Your task to perform on an android device: make emails show in primary in the gmail app Image 0: 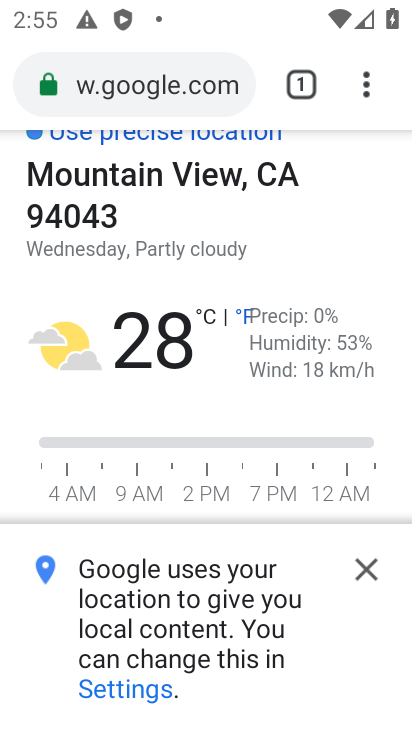
Step 0: press home button
Your task to perform on an android device: make emails show in primary in the gmail app Image 1: 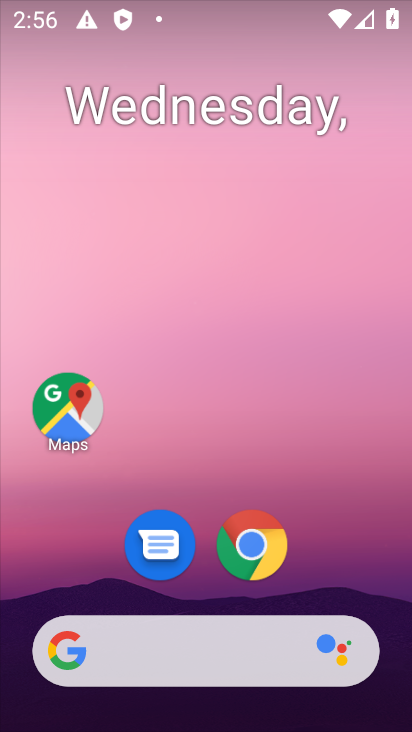
Step 1: drag from (202, 338) to (198, 270)
Your task to perform on an android device: make emails show in primary in the gmail app Image 2: 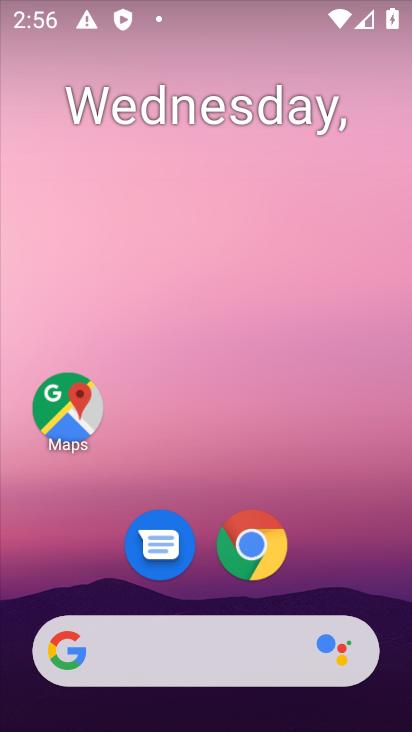
Step 2: drag from (188, 661) to (143, 346)
Your task to perform on an android device: make emails show in primary in the gmail app Image 3: 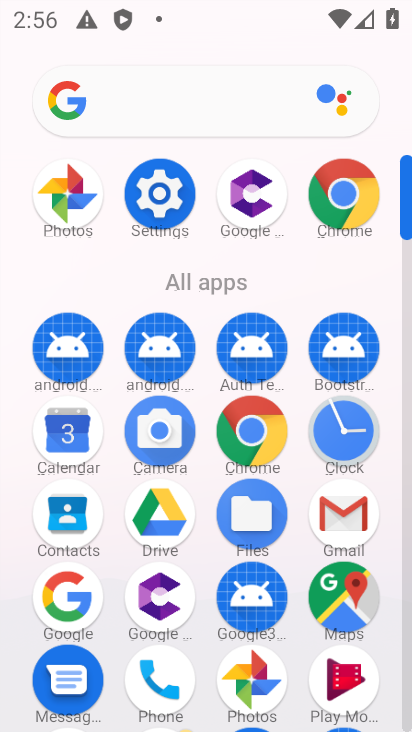
Step 3: click (327, 510)
Your task to perform on an android device: make emails show in primary in the gmail app Image 4: 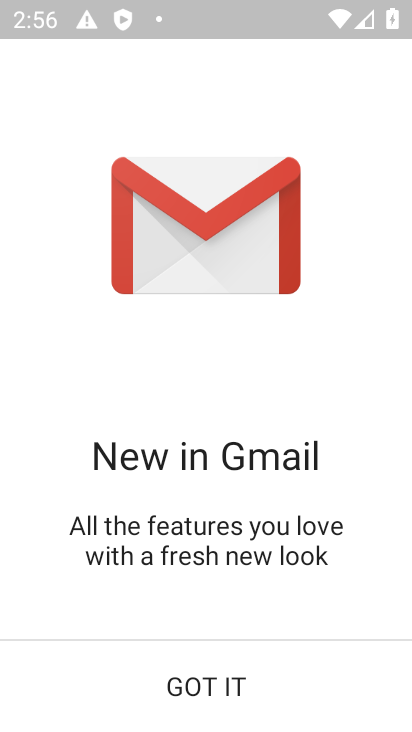
Step 4: click (173, 672)
Your task to perform on an android device: make emails show in primary in the gmail app Image 5: 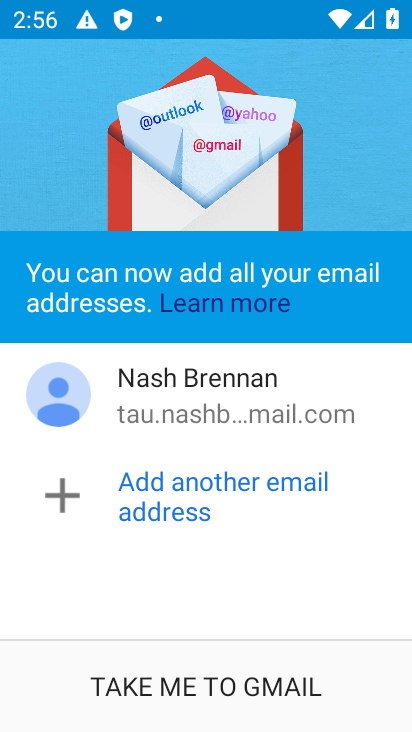
Step 5: click (248, 679)
Your task to perform on an android device: make emails show in primary in the gmail app Image 6: 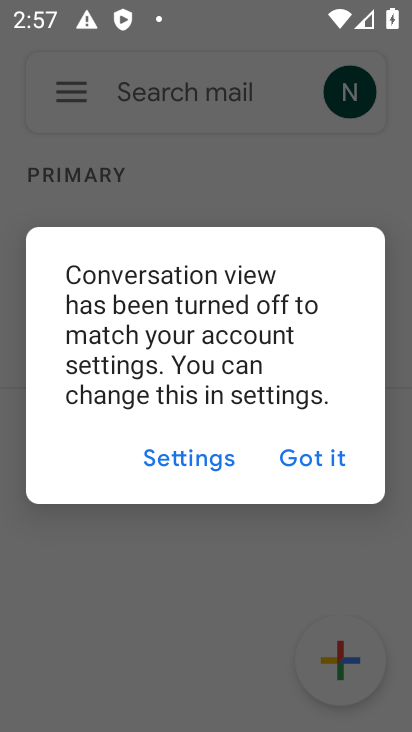
Step 6: click (329, 469)
Your task to perform on an android device: make emails show in primary in the gmail app Image 7: 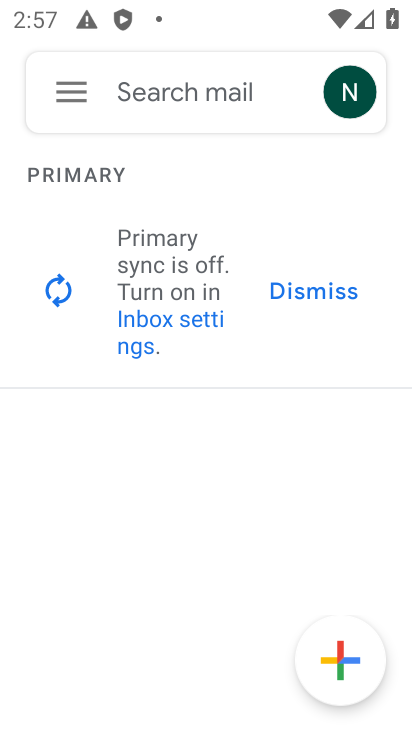
Step 7: click (66, 100)
Your task to perform on an android device: make emails show in primary in the gmail app Image 8: 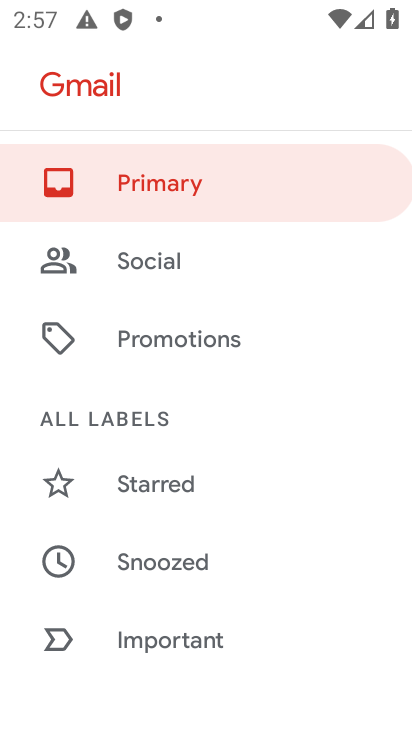
Step 8: drag from (169, 555) to (151, 128)
Your task to perform on an android device: make emails show in primary in the gmail app Image 9: 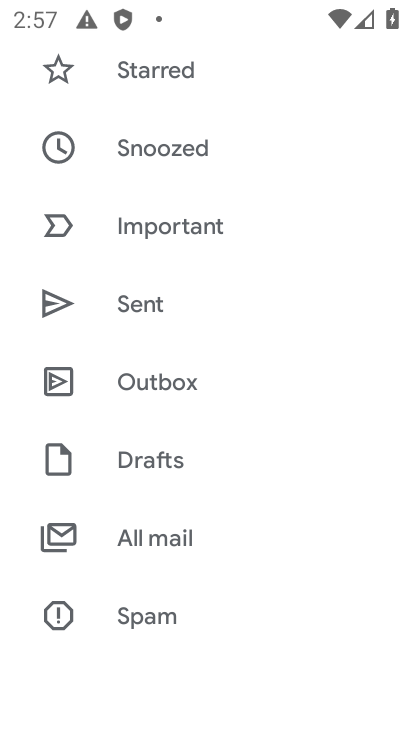
Step 9: drag from (216, 579) to (168, 1)
Your task to perform on an android device: make emails show in primary in the gmail app Image 10: 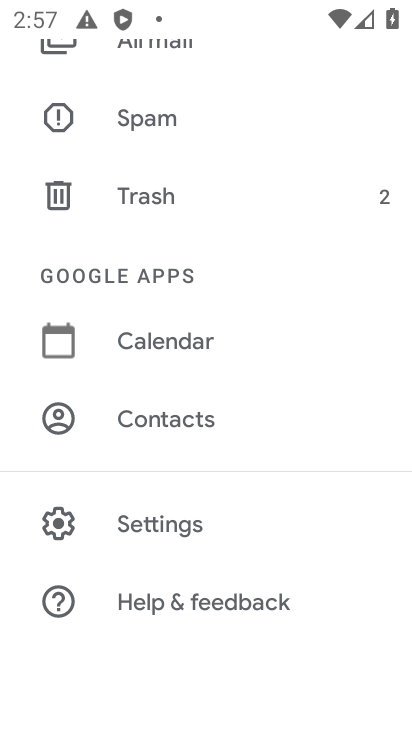
Step 10: click (175, 532)
Your task to perform on an android device: make emails show in primary in the gmail app Image 11: 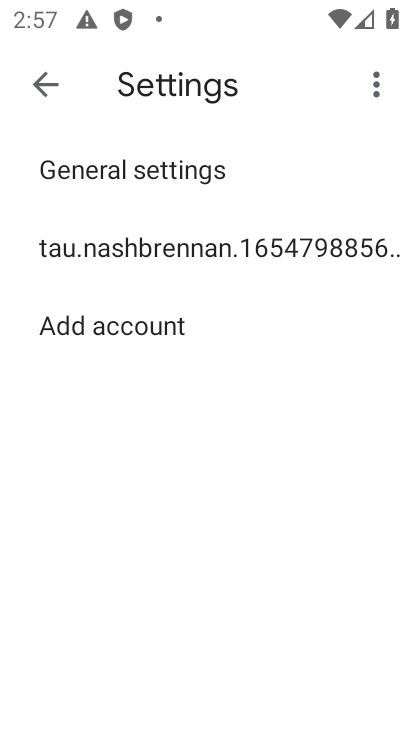
Step 11: click (263, 249)
Your task to perform on an android device: make emails show in primary in the gmail app Image 12: 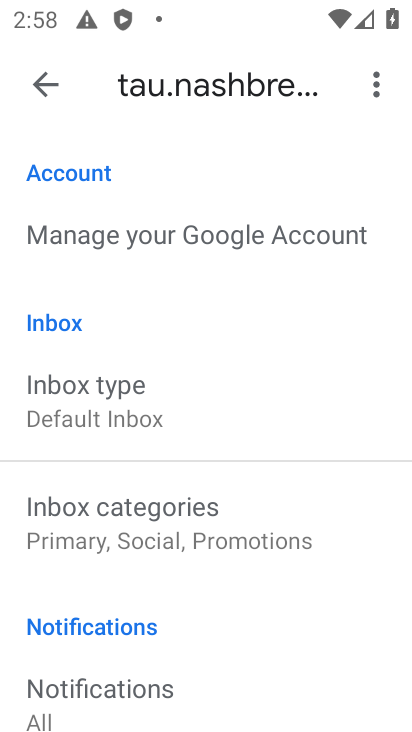
Step 12: click (179, 512)
Your task to perform on an android device: make emails show in primary in the gmail app Image 13: 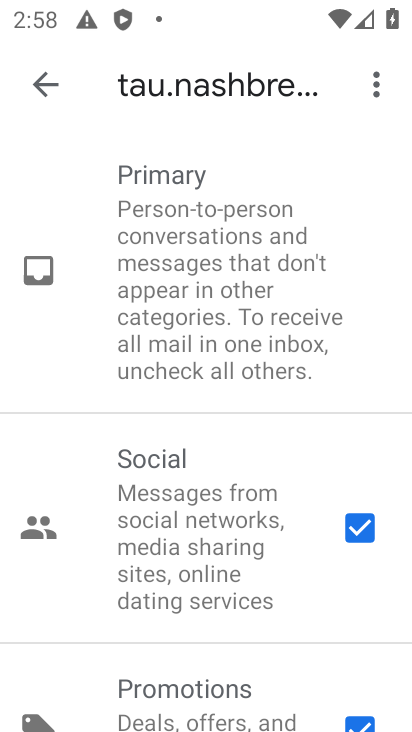
Step 13: drag from (179, 512) to (360, 547)
Your task to perform on an android device: make emails show in primary in the gmail app Image 14: 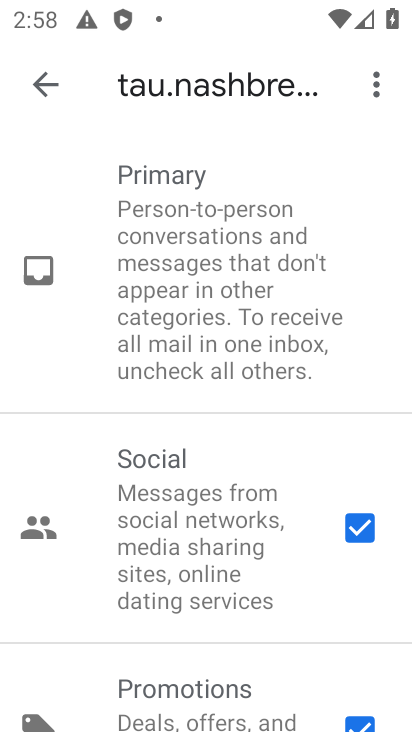
Step 14: click (355, 533)
Your task to perform on an android device: make emails show in primary in the gmail app Image 15: 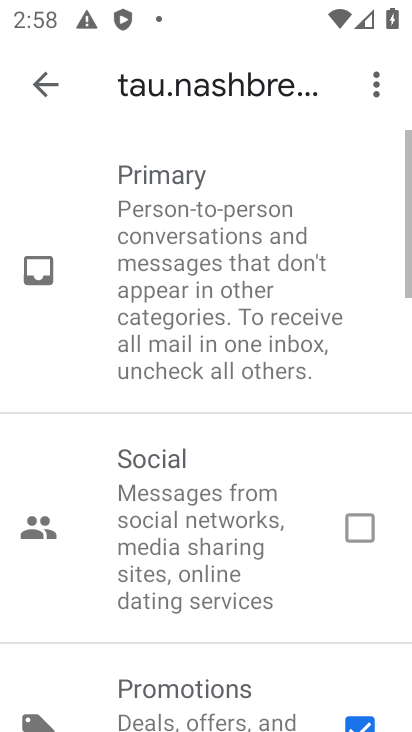
Step 15: click (361, 716)
Your task to perform on an android device: make emails show in primary in the gmail app Image 16: 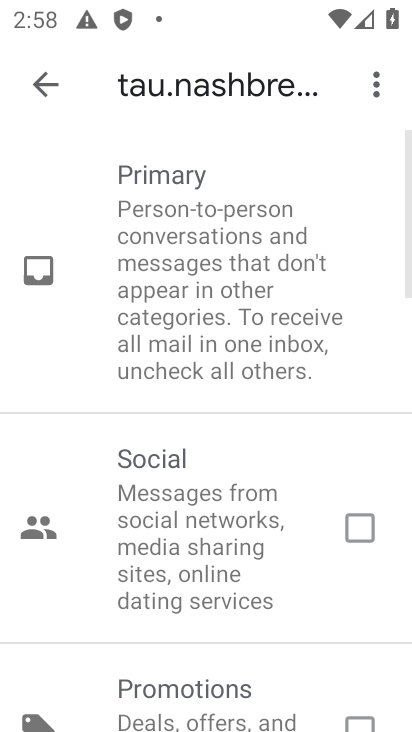
Step 16: task complete